Your task to perform on an android device: Show the shopping cart on walmart. Image 0: 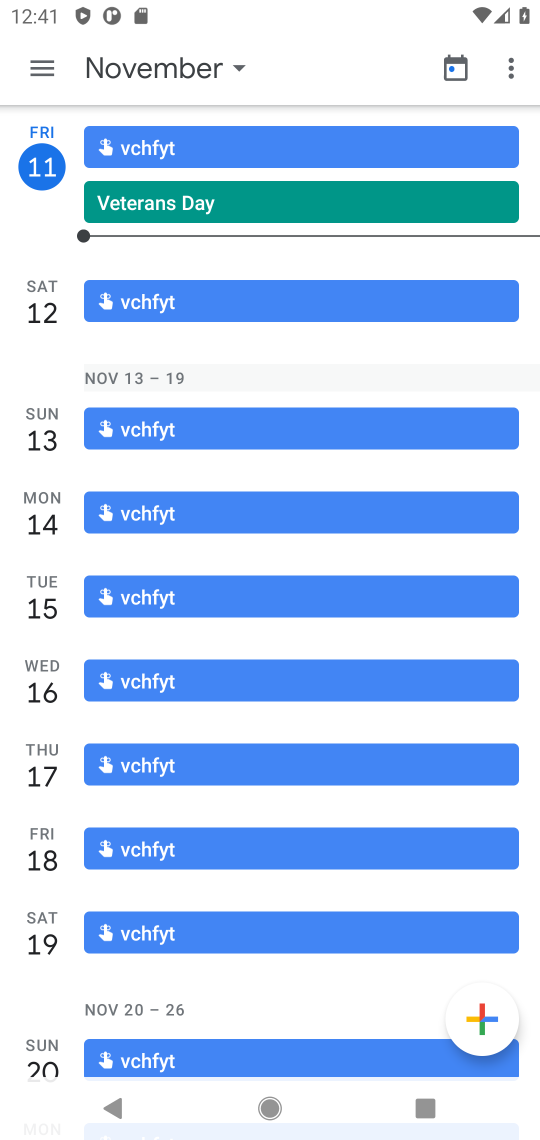
Step 0: press home button
Your task to perform on an android device: Show the shopping cart on walmart. Image 1: 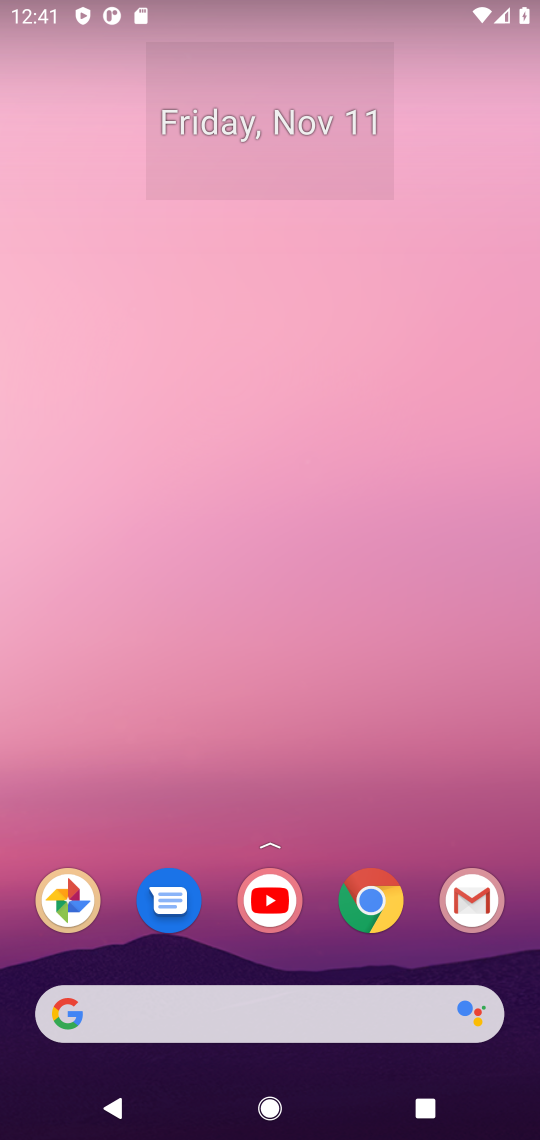
Step 1: click (367, 918)
Your task to perform on an android device: Show the shopping cart on walmart. Image 2: 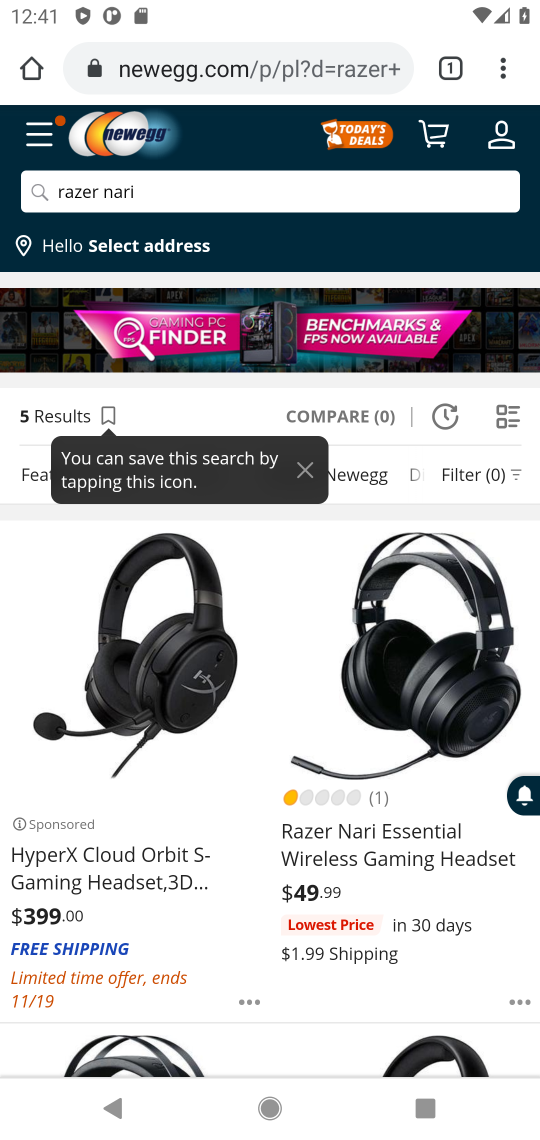
Step 2: click (311, 71)
Your task to perform on an android device: Show the shopping cart on walmart. Image 3: 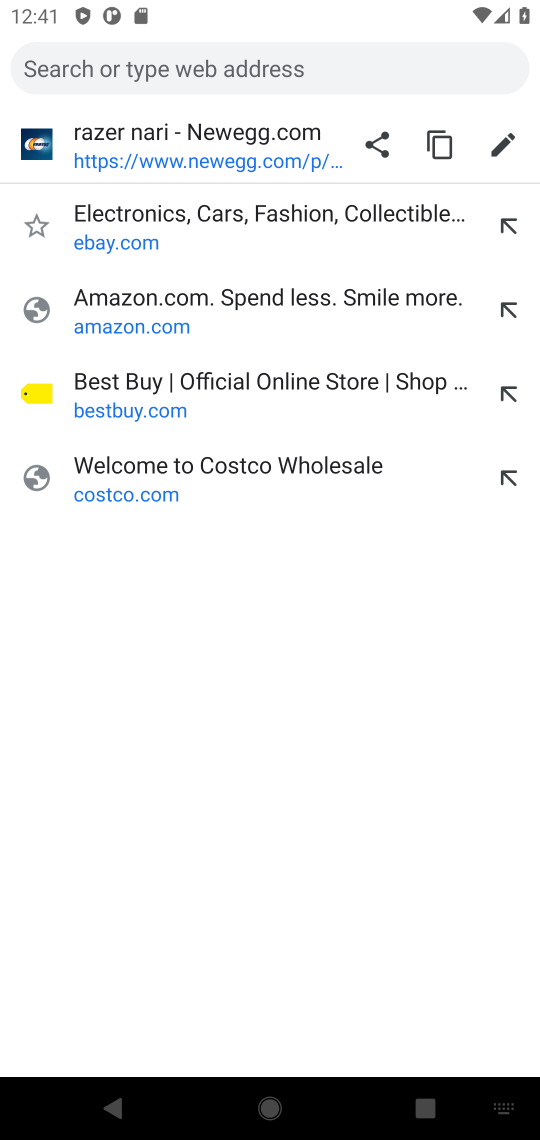
Step 3: type "walmart"
Your task to perform on an android device: Show the shopping cart on walmart. Image 4: 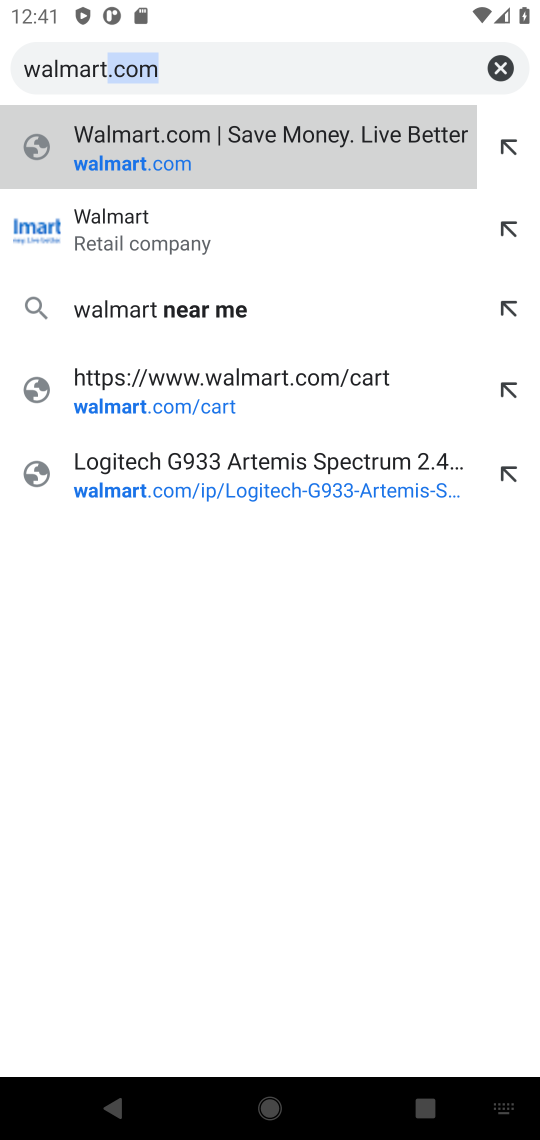
Step 4: press enter
Your task to perform on an android device: Show the shopping cart on walmart. Image 5: 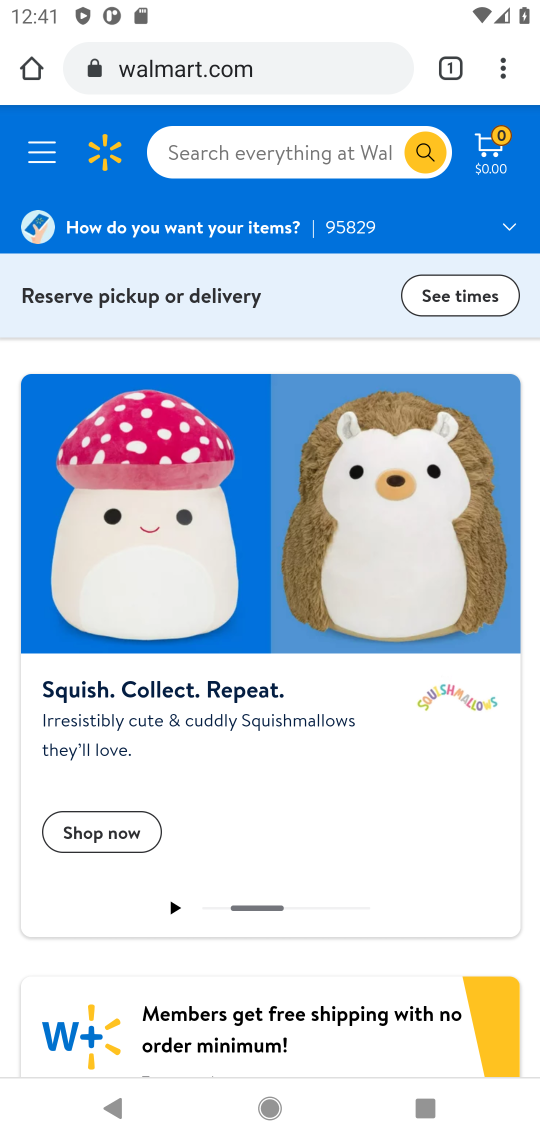
Step 5: click (499, 147)
Your task to perform on an android device: Show the shopping cart on walmart. Image 6: 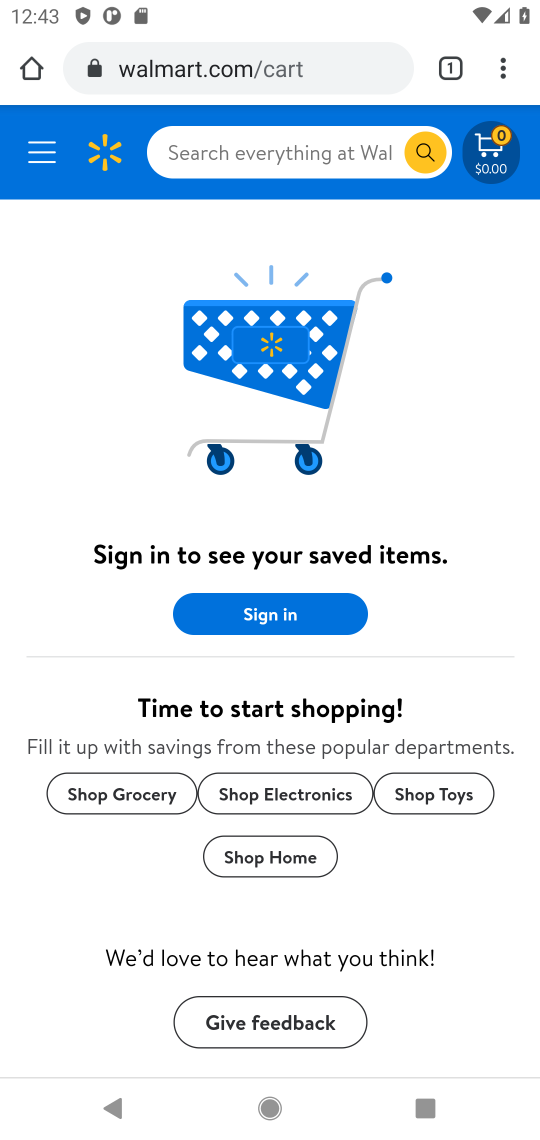
Step 6: task complete